Your task to perform on an android device: find which apps use the phone's location Image 0: 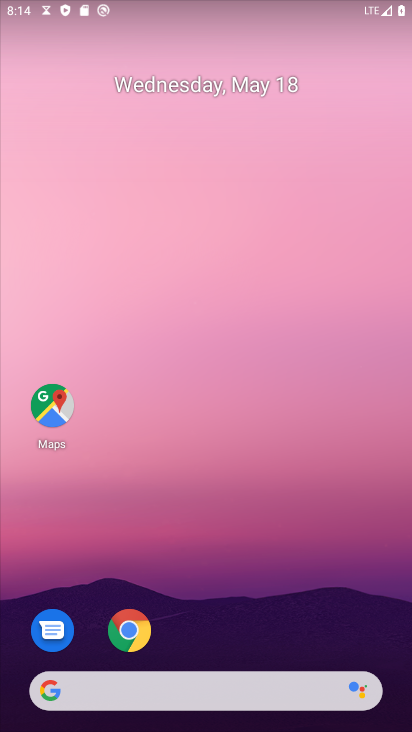
Step 0: drag from (315, 404) to (365, 42)
Your task to perform on an android device: find which apps use the phone's location Image 1: 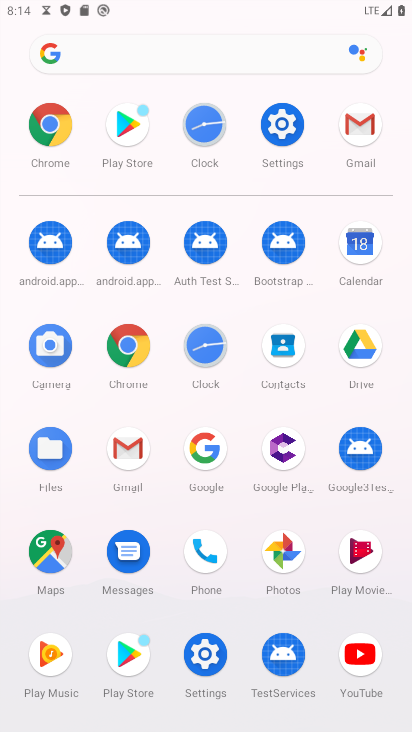
Step 1: click (276, 129)
Your task to perform on an android device: find which apps use the phone's location Image 2: 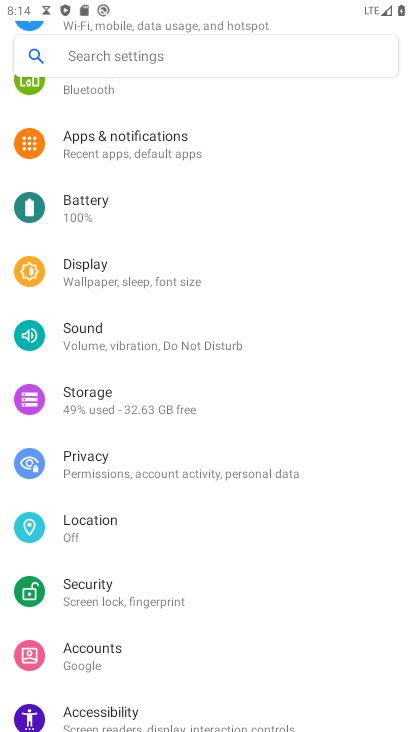
Step 2: click (100, 535)
Your task to perform on an android device: find which apps use the phone's location Image 3: 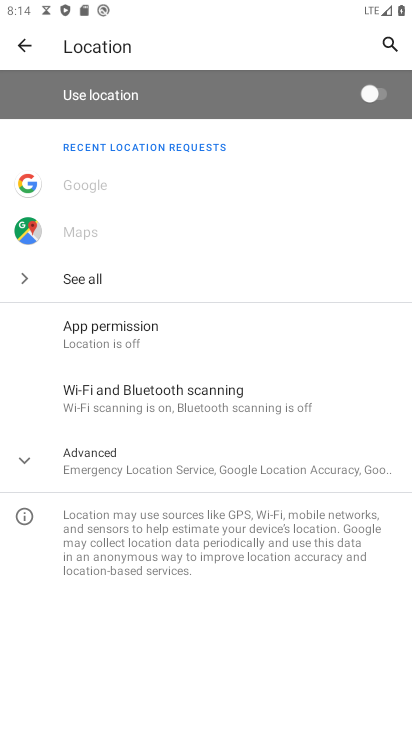
Step 3: click (123, 329)
Your task to perform on an android device: find which apps use the phone's location Image 4: 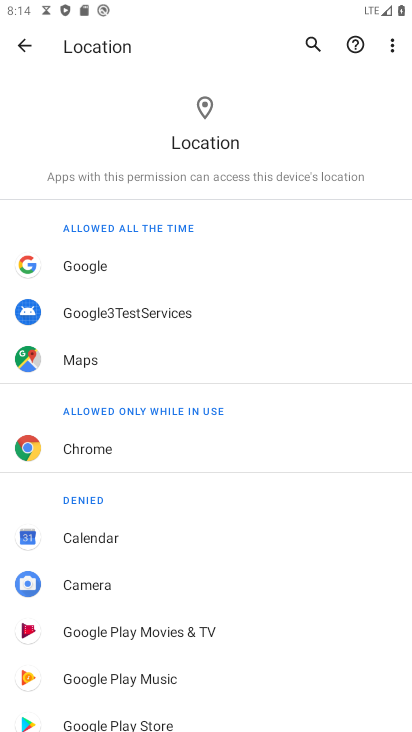
Step 4: task complete